Your task to perform on an android device: toggle notification dots Image 0: 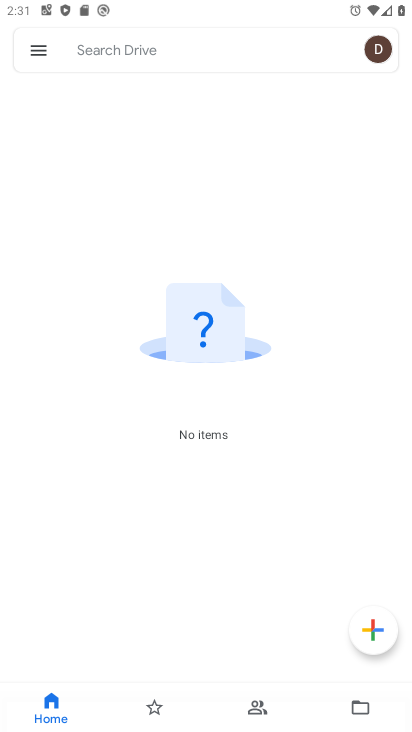
Step 0: press home button
Your task to perform on an android device: toggle notification dots Image 1: 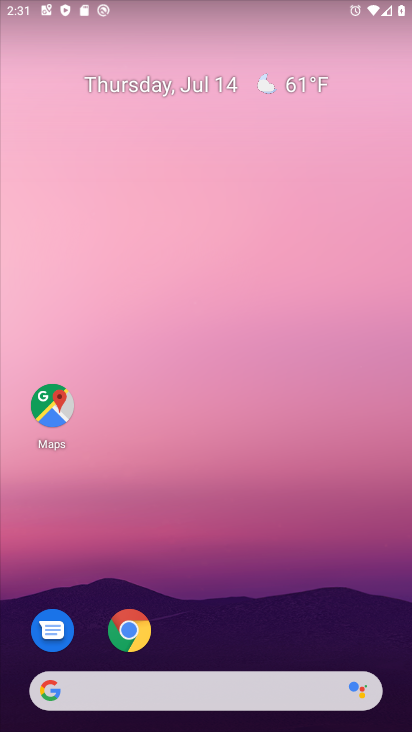
Step 1: drag from (159, 673) to (319, 99)
Your task to perform on an android device: toggle notification dots Image 2: 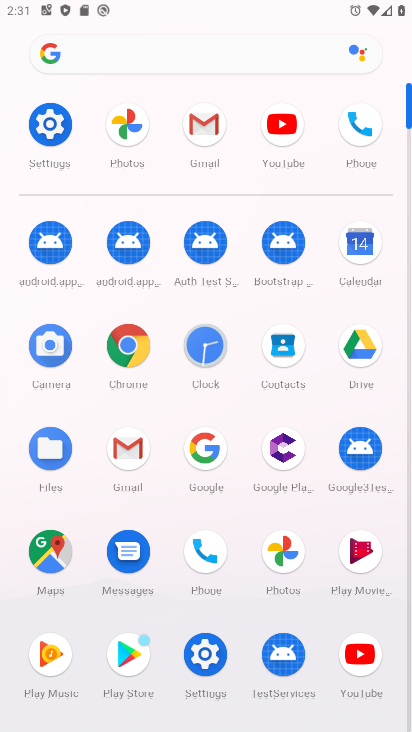
Step 2: click (60, 131)
Your task to perform on an android device: toggle notification dots Image 3: 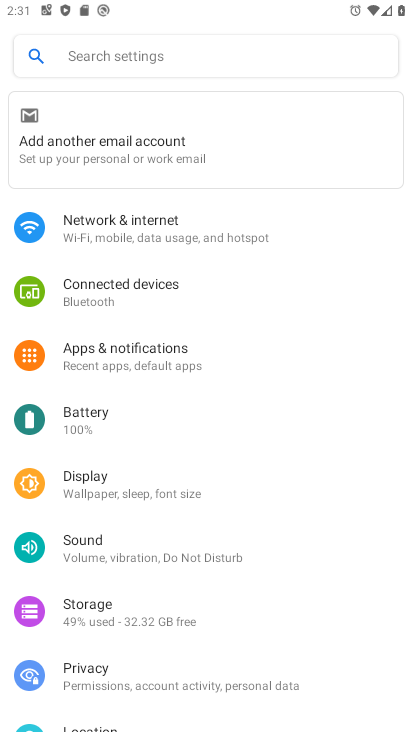
Step 3: click (167, 351)
Your task to perform on an android device: toggle notification dots Image 4: 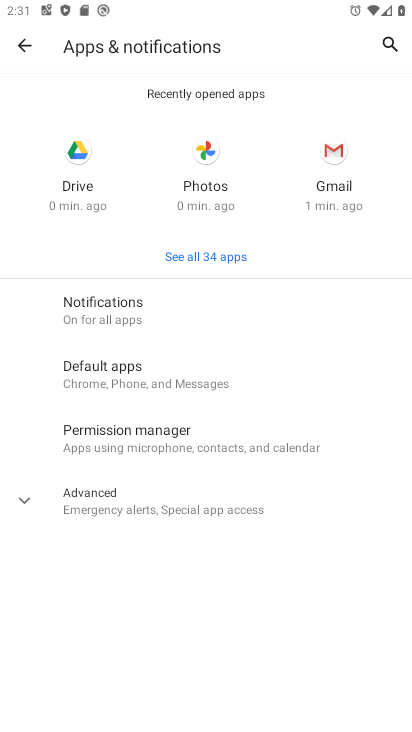
Step 4: click (120, 320)
Your task to perform on an android device: toggle notification dots Image 5: 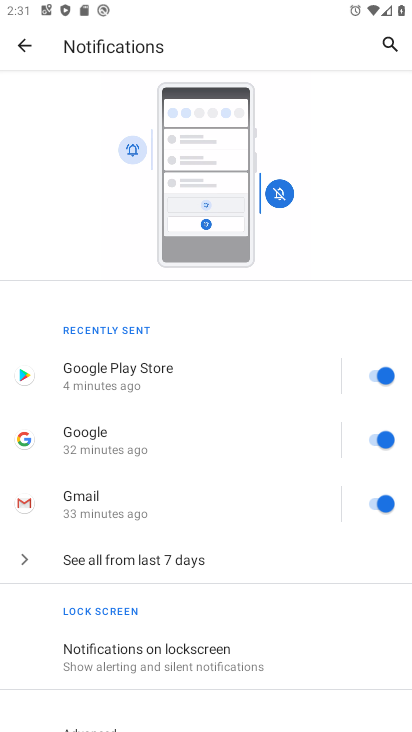
Step 5: drag from (256, 624) to (343, 240)
Your task to perform on an android device: toggle notification dots Image 6: 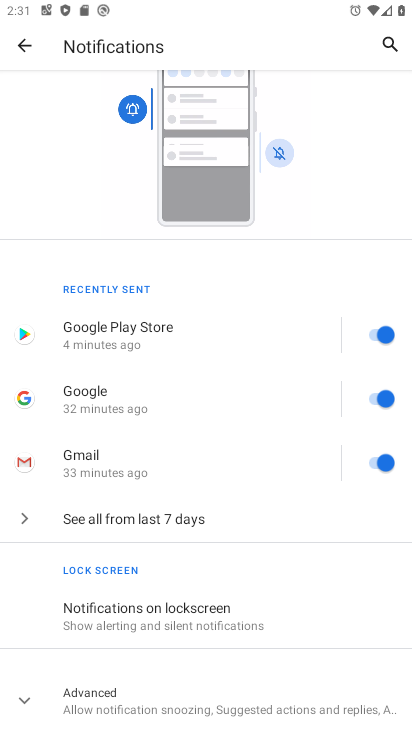
Step 6: click (165, 683)
Your task to perform on an android device: toggle notification dots Image 7: 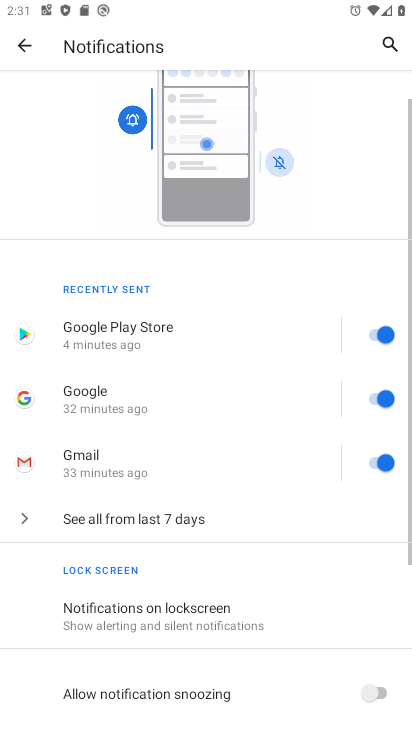
Step 7: drag from (192, 654) to (313, 226)
Your task to perform on an android device: toggle notification dots Image 8: 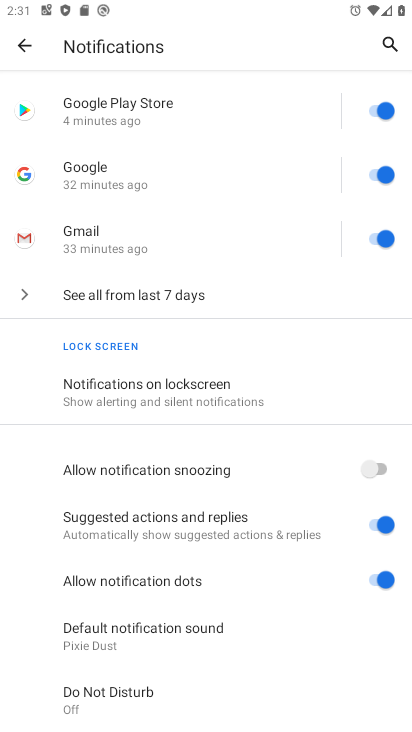
Step 8: click (375, 579)
Your task to perform on an android device: toggle notification dots Image 9: 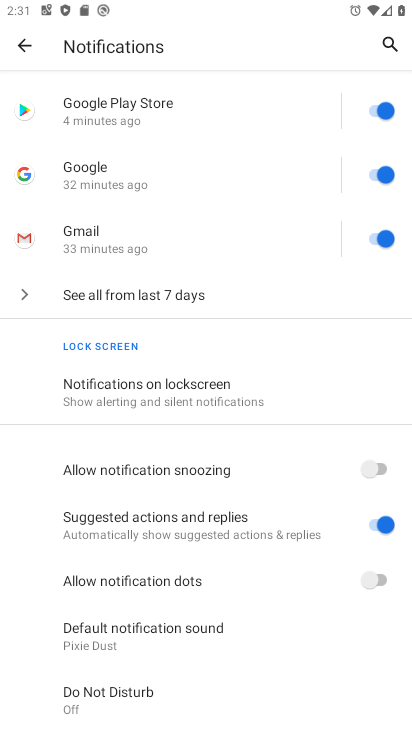
Step 9: task complete